Your task to perform on an android device: turn on improve location accuracy Image 0: 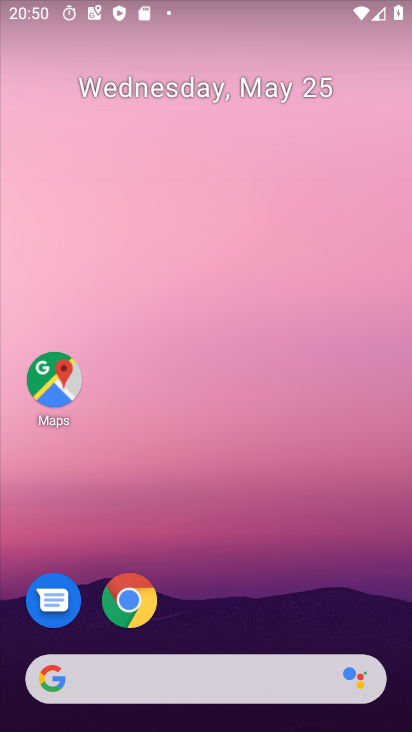
Step 0: drag from (369, 616) to (369, 126)
Your task to perform on an android device: turn on improve location accuracy Image 1: 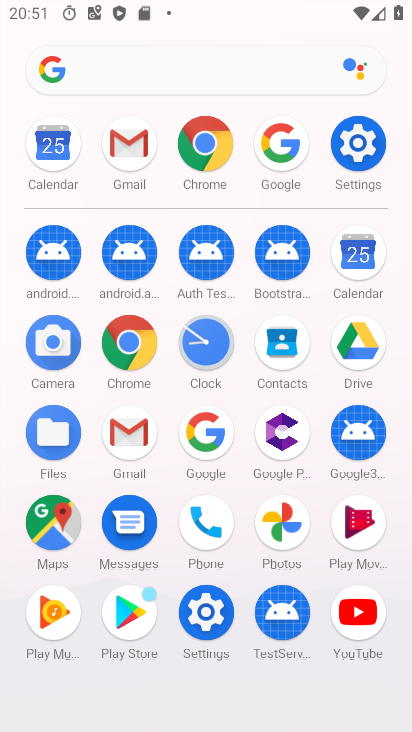
Step 1: click (343, 159)
Your task to perform on an android device: turn on improve location accuracy Image 2: 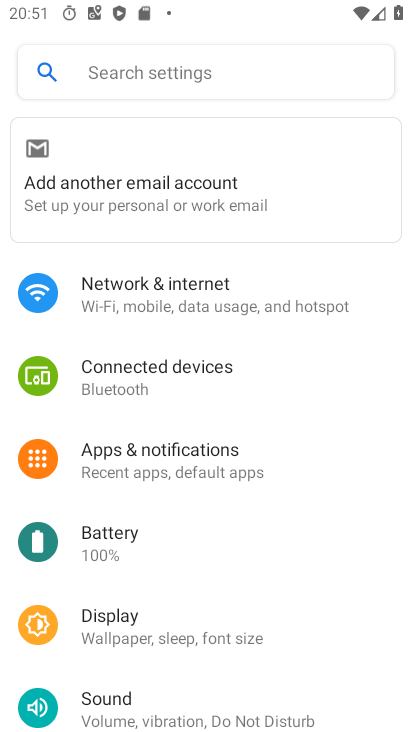
Step 2: drag from (306, 642) to (282, 281)
Your task to perform on an android device: turn on improve location accuracy Image 3: 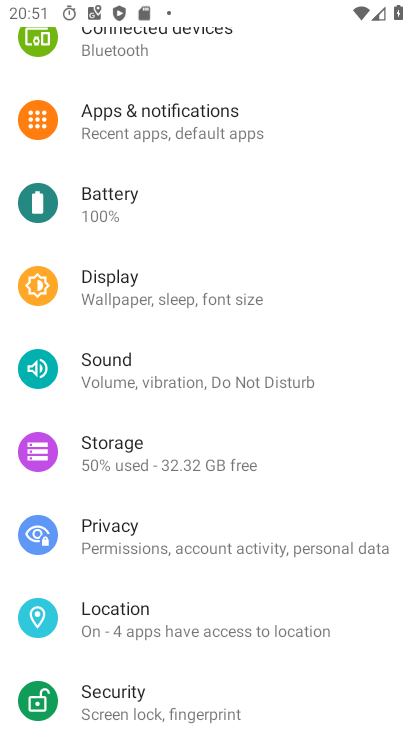
Step 3: click (254, 627)
Your task to perform on an android device: turn on improve location accuracy Image 4: 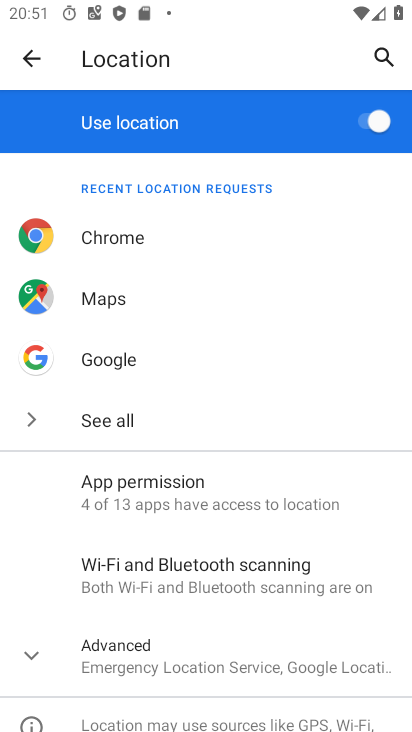
Step 4: drag from (258, 624) to (275, 328)
Your task to perform on an android device: turn on improve location accuracy Image 5: 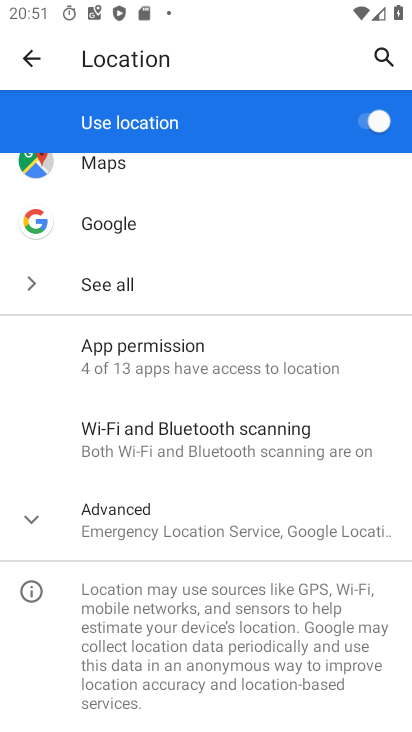
Step 5: click (259, 522)
Your task to perform on an android device: turn on improve location accuracy Image 6: 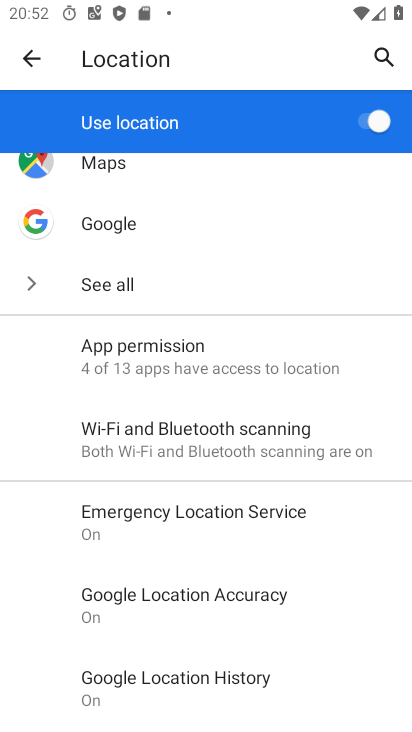
Step 6: click (247, 593)
Your task to perform on an android device: turn on improve location accuracy Image 7: 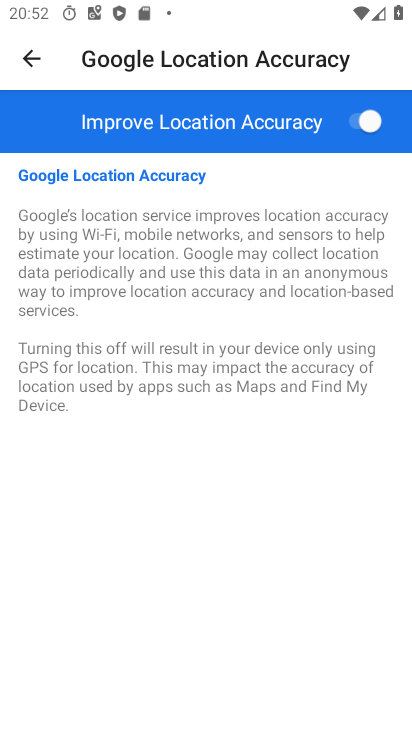
Step 7: task complete